Your task to perform on an android device: open app "Speedtest by Ookla" Image 0: 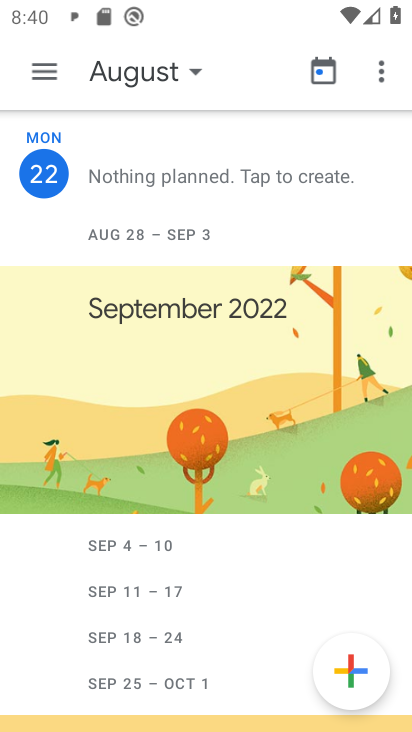
Step 0: press home button
Your task to perform on an android device: open app "Speedtest by Ookla" Image 1: 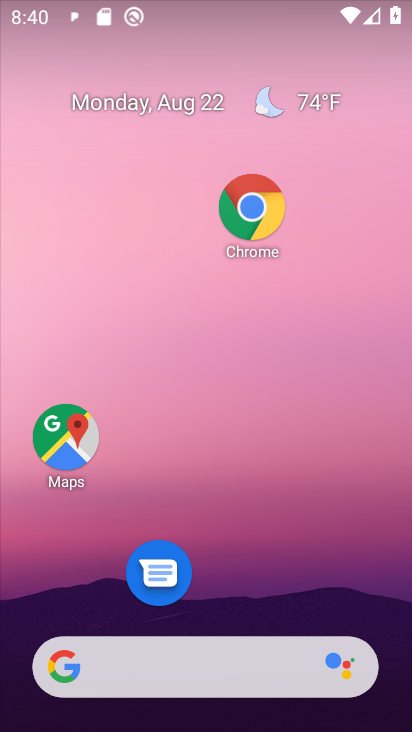
Step 1: drag from (231, 614) to (294, 23)
Your task to perform on an android device: open app "Speedtest by Ookla" Image 2: 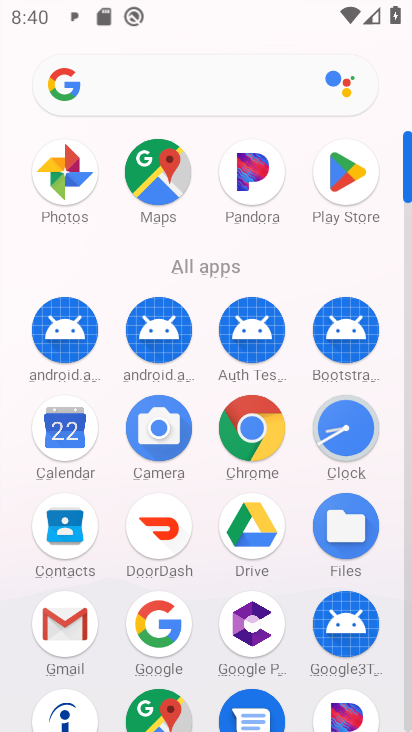
Step 2: click (350, 186)
Your task to perform on an android device: open app "Speedtest by Ookla" Image 3: 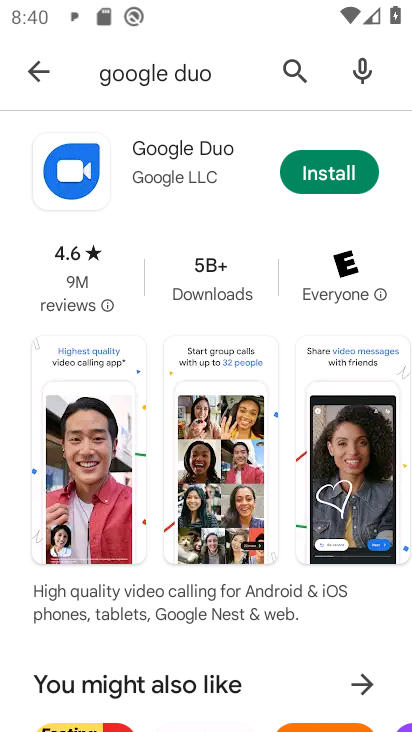
Step 3: click (223, 87)
Your task to perform on an android device: open app "Speedtest by Ookla" Image 4: 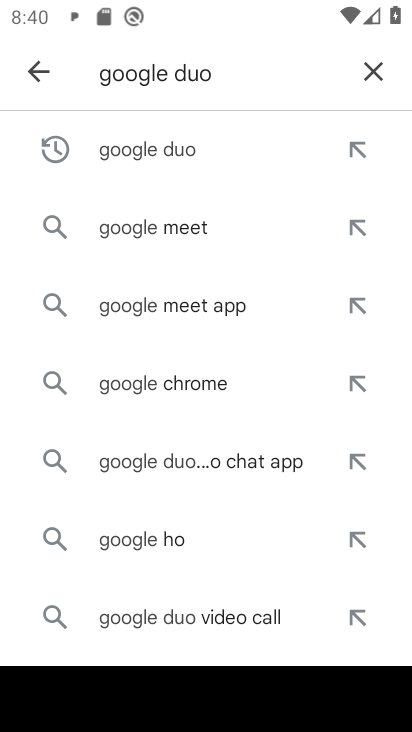
Step 4: click (373, 73)
Your task to perform on an android device: open app "Speedtest by Ookla" Image 5: 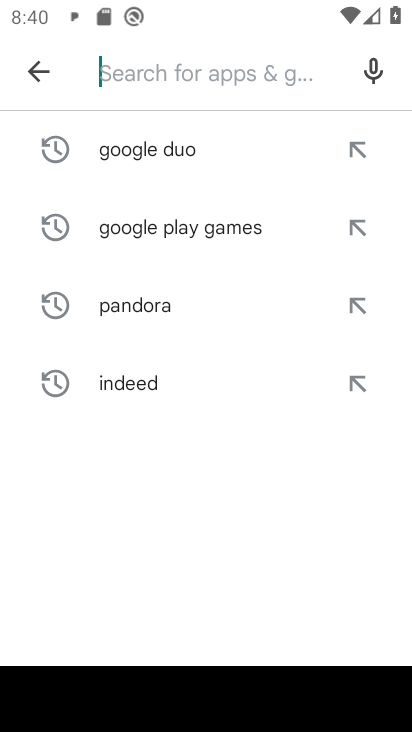
Step 5: type "speedtest by Ookla"
Your task to perform on an android device: open app "Speedtest by Ookla" Image 6: 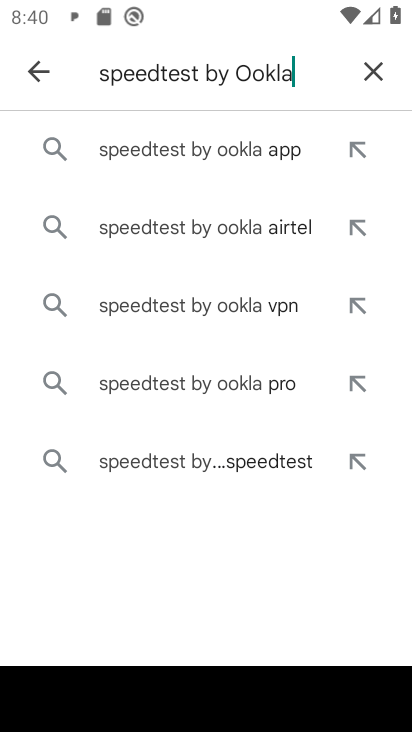
Step 6: click (245, 165)
Your task to perform on an android device: open app "Speedtest by Ookla" Image 7: 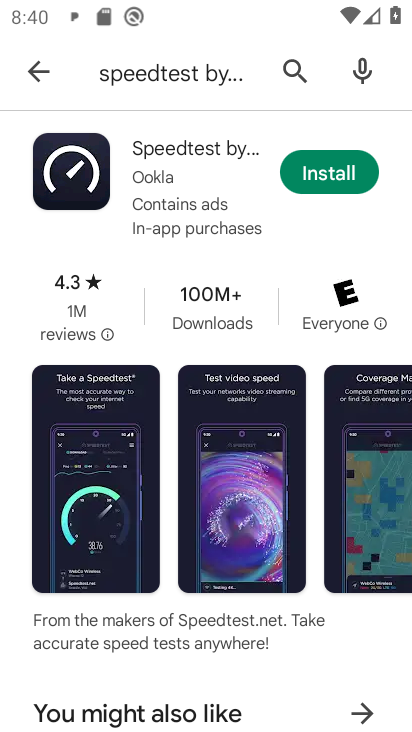
Step 7: task complete